Your task to perform on an android device: turn on improve location accuracy Image 0: 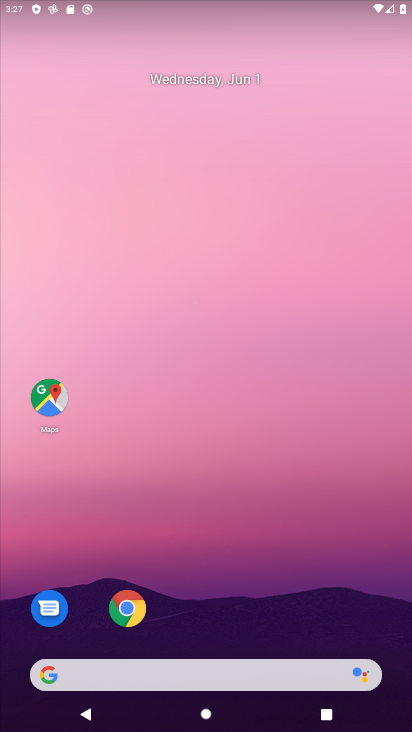
Step 0: drag from (212, 671) to (303, 205)
Your task to perform on an android device: turn on improve location accuracy Image 1: 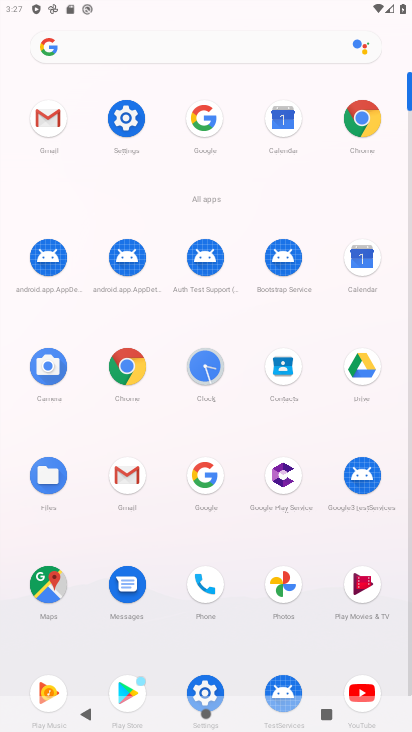
Step 1: click (132, 115)
Your task to perform on an android device: turn on improve location accuracy Image 2: 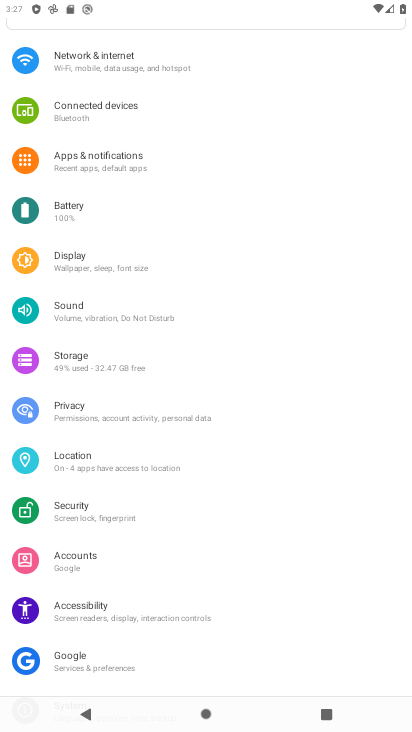
Step 2: click (91, 454)
Your task to perform on an android device: turn on improve location accuracy Image 3: 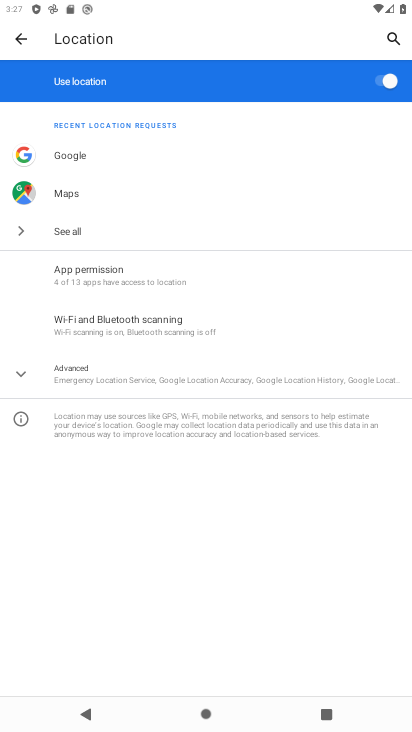
Step 3: click (104, 375)
Your task to perform on an android device: turn on improve location accuracy Image 4: 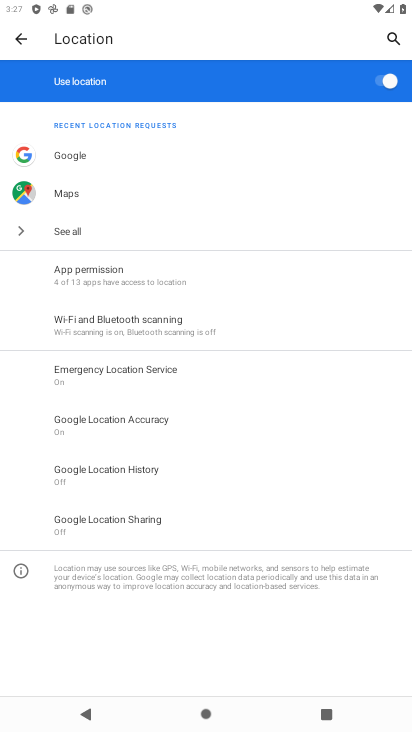
Step 4: click (103, 430)
Your task to perform on an android device: turn on improve location accuracy Image 5: 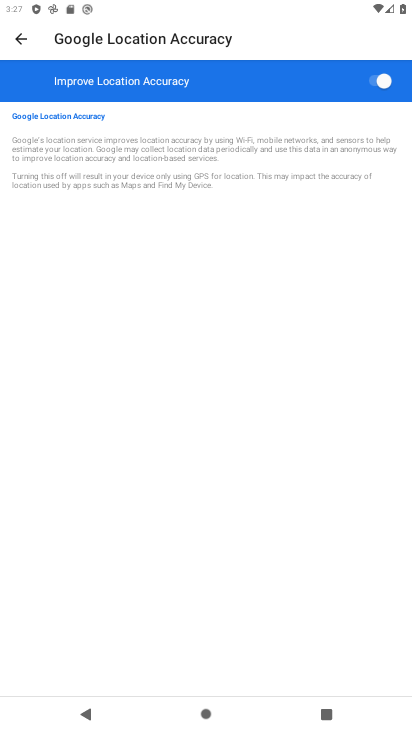
Step 5: task complete